Your task to perform on an android device: Do I have any events this weekend? Image 0: 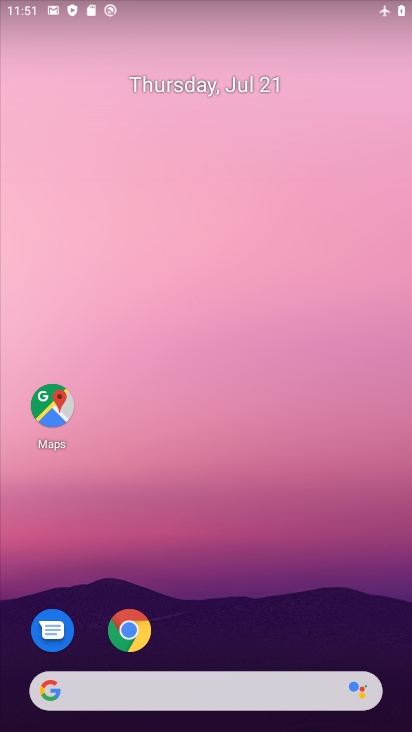
Step 0: drag from (357, 585) to (258, 109)
Your task to perform on an android device: Do I have any events this weekend? Image 1: 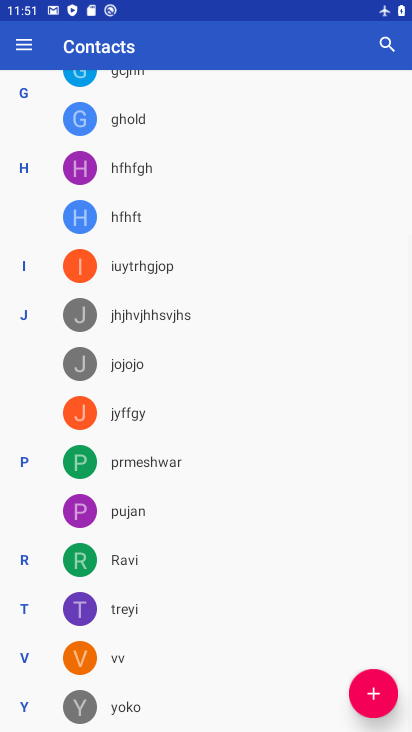
Step 1: press home button
Your task to perform on an android device: Do I have any events this weekend? Image 2: 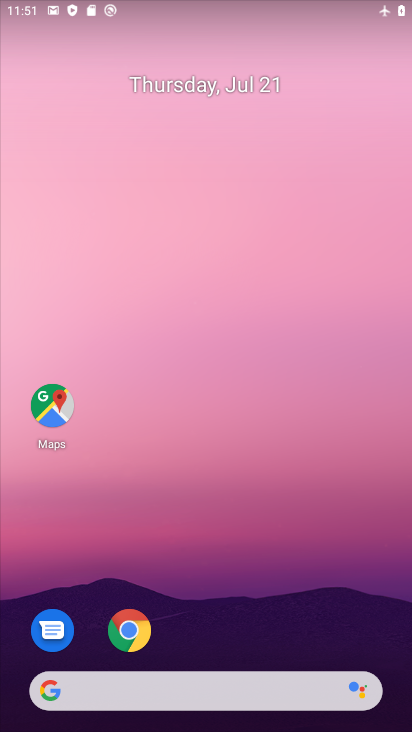
Step 2: drag from (234, 525) to (394, 592)
Your task to perform on an android device: Do I have any events this weekend? Image 3: 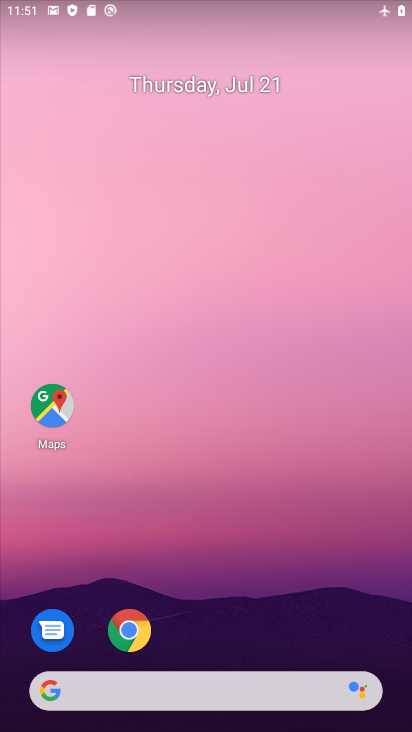
Step 3: drag from (295, 532) to (286, 158)
Your task to perform on an android device: Do I have any events this weekend? Image 4: 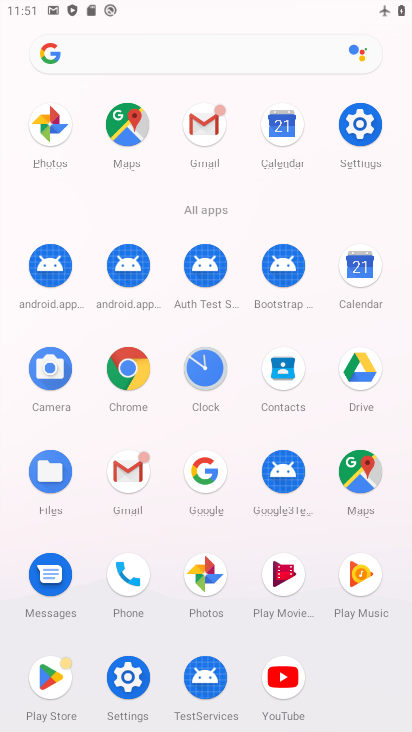
Step 4: click (371, 257)
Your task to perform on an android device: Do I have any events this weekend? Image 5: 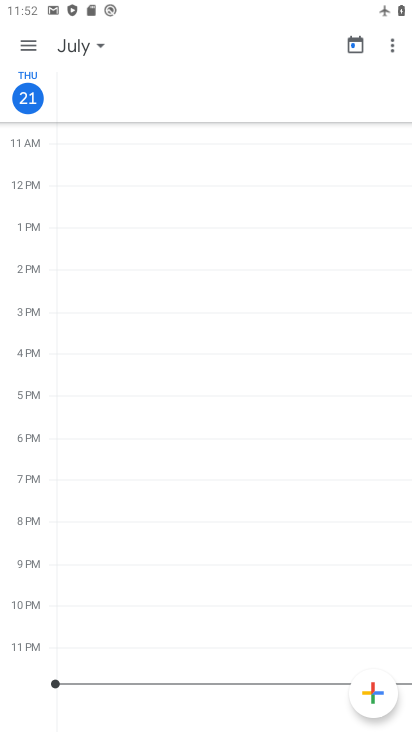
Step 5: click (80, 46)
Your task to perform on an android device: Do I have any events this weekend? Image 6: 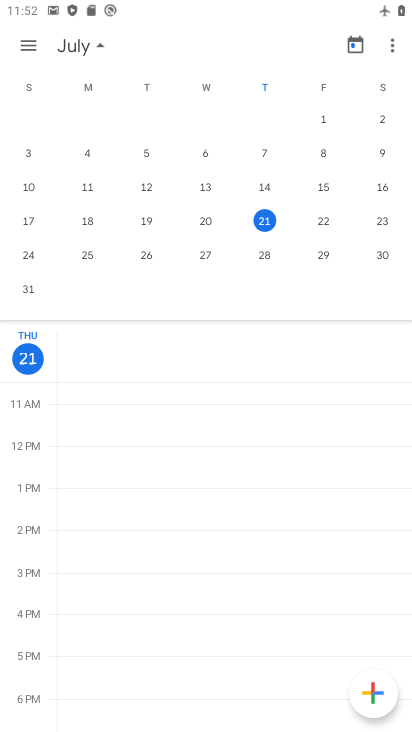
Step 6: click (378, 260)
Your task to perform on an android device: Do I have any events this weekend? Image 7: 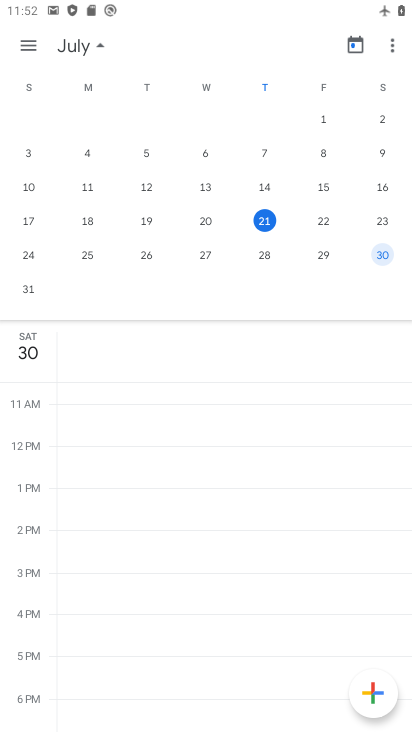
Step 7: task complete